Your task to perform on an android device: What's the weather today? Image 0: 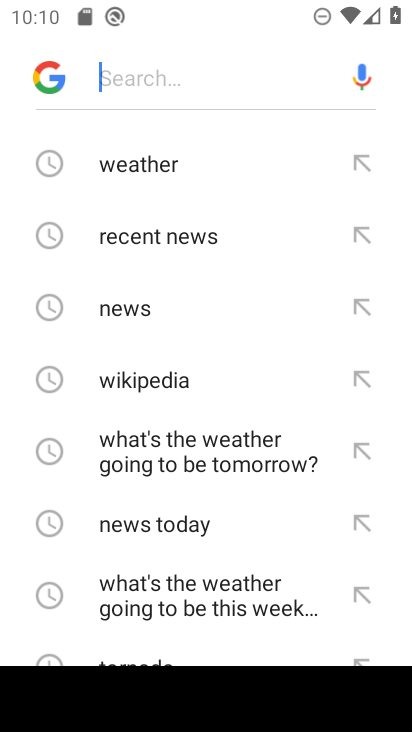
Step 0: click (162, 168)
Your task to perform on an android device: What's the weather today? Image 1: 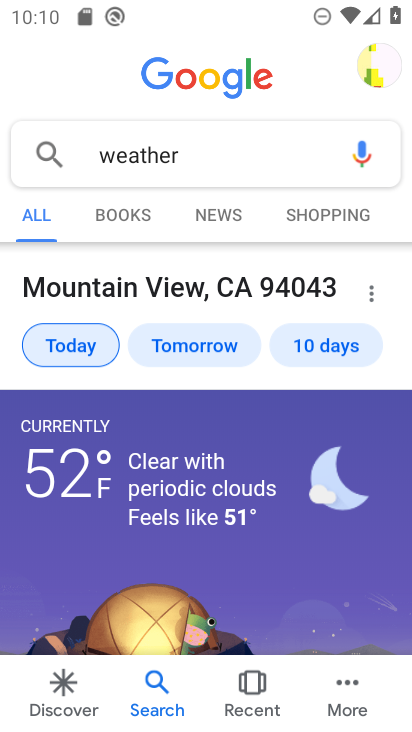
Step 1: task complete